Your task to perform on an android device: Open the phone app and click the voicemail tab. Image 0: 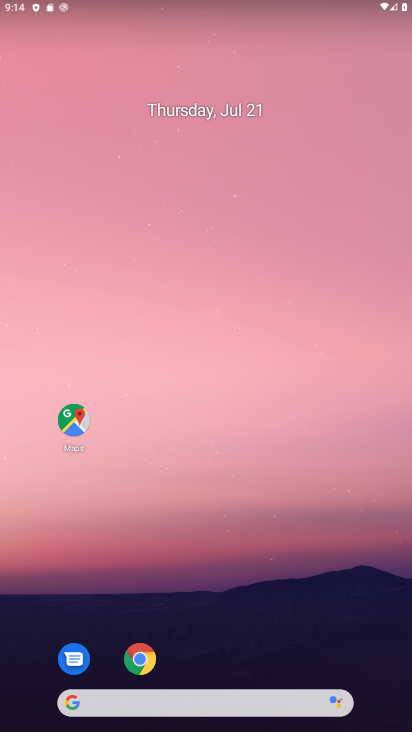
Step 0: drag from (188, 666) to (146, 80)
Your task to perform on an android device: Open the phone app and click the voicemail tab. Image 1: 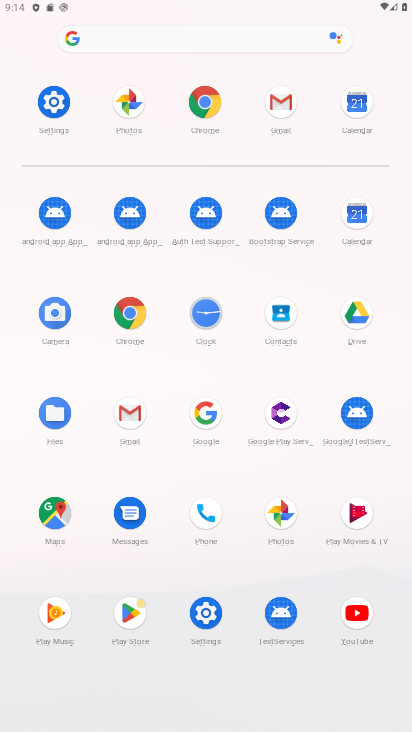
Step 1: click (195, 513)
Your task to perform on an android device: Open the phone app and click the voicemail tab. Image 2: 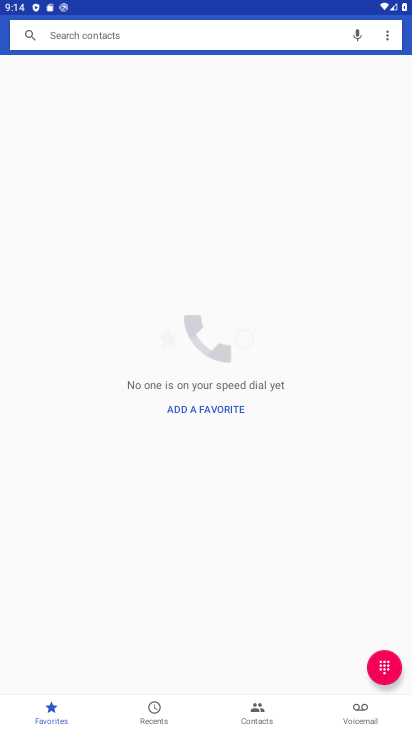
Step 2: click (348, 712)
Your task to perform on an android device: Open the phone app and click the voicemail tab. Image 3: 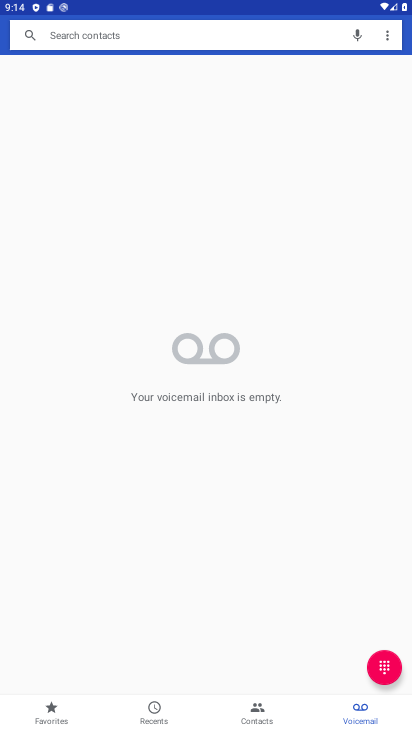
Step 3: task complete